Your task to perform on an android device: turn off translation in the chrome app Image 0: 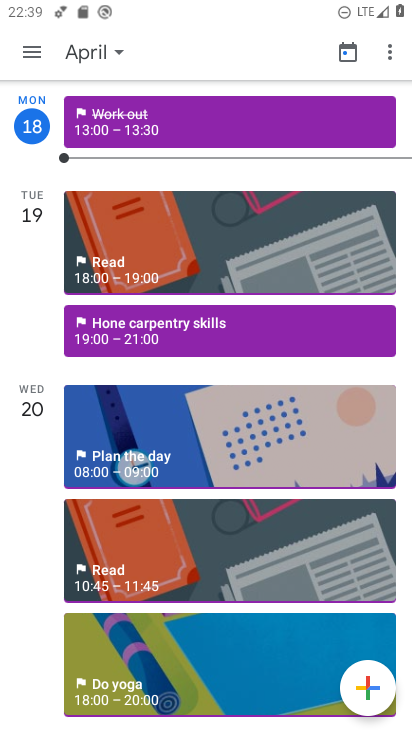
Step 0: press home button
Your task to perform on an android device: turn off translation in the chrome app Image 1: 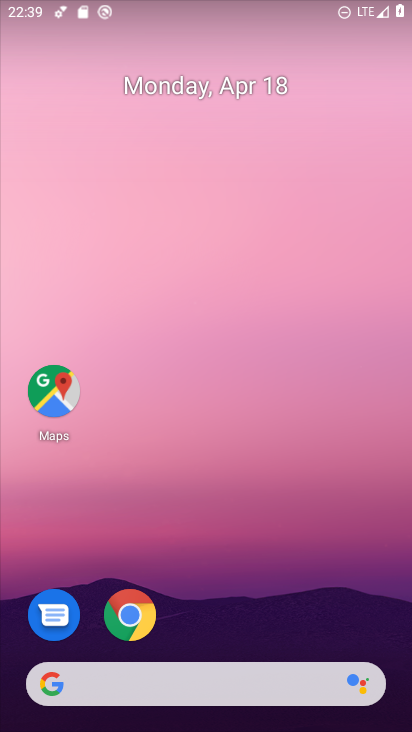
Step 1: click (134, 618)
Your task to perform on an android device: turn off translation in the chrome app Image 2: 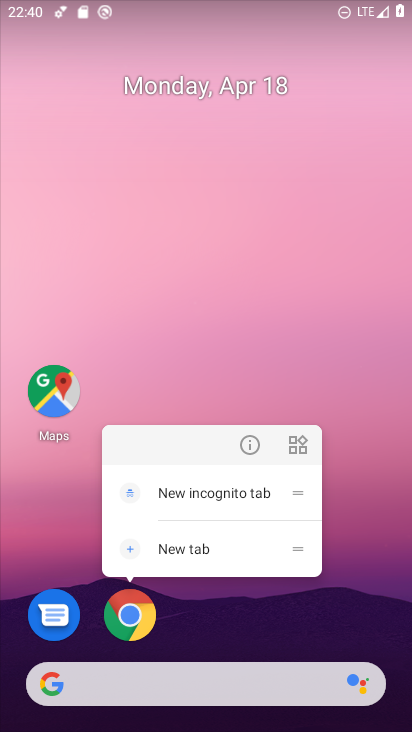
Step 2: click (142, 620)
Your task to perform on an android device: turn off translation in the chrome app Image 3: 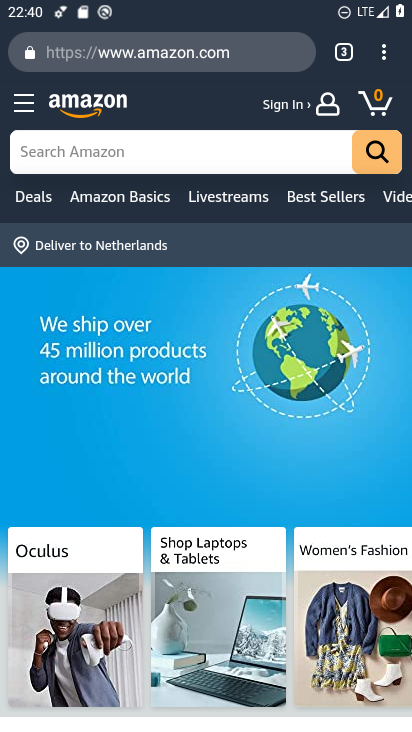
Step 3: click (381, 58)
Your task to perform on an android device: turn off translation in the chrome app Image 4: 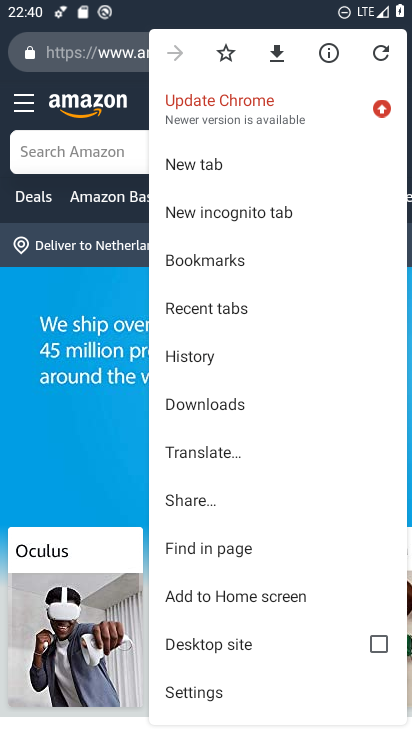
Step 4: click (188, 693)
Your task to perform on an android device: turn off translation in the chrome app Image 5: 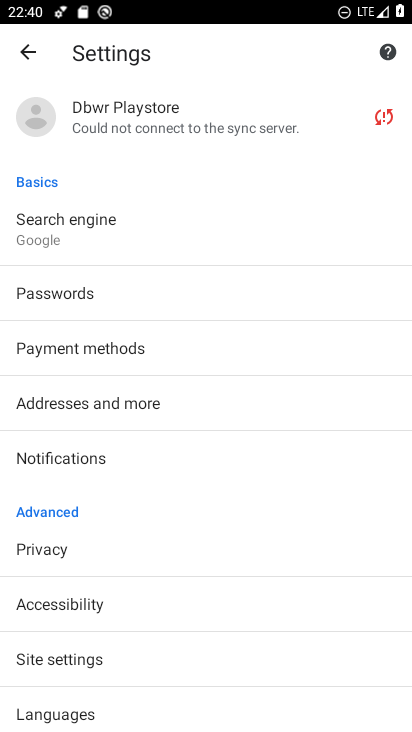
Step 5: click (87, 710)
Your task to perform on an android device: turn off translation in the chrome app Image 6: 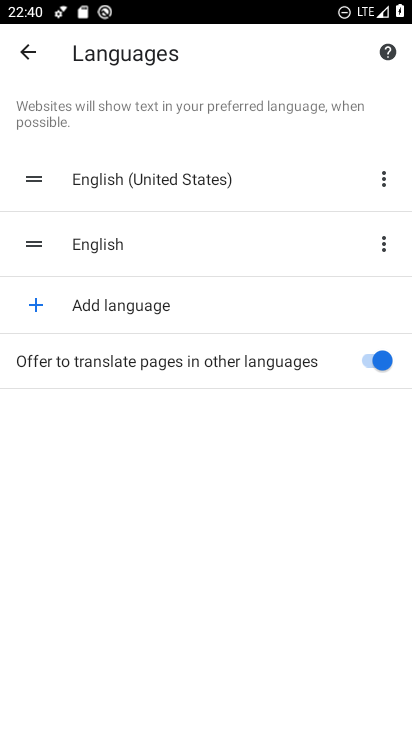
Step 6: click (386, 354)
Your task to perform on an android device: turn off translation in the chrome app Image 7: 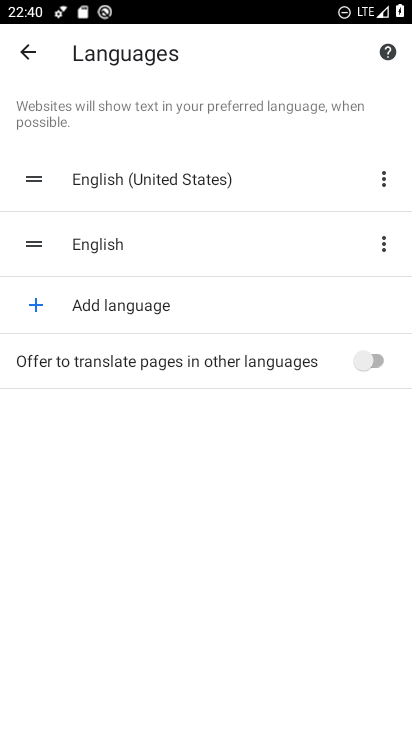
Step 7: task complete